Your task to perform on an android device: open a new tab in the chrome app Image 0: 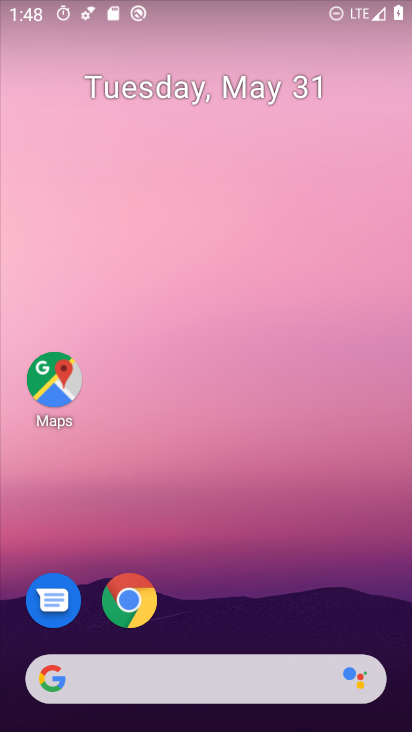
Step 0: click (125, 597)
Your task to perform on an android device: open a new tab in the chrome app Image 1: 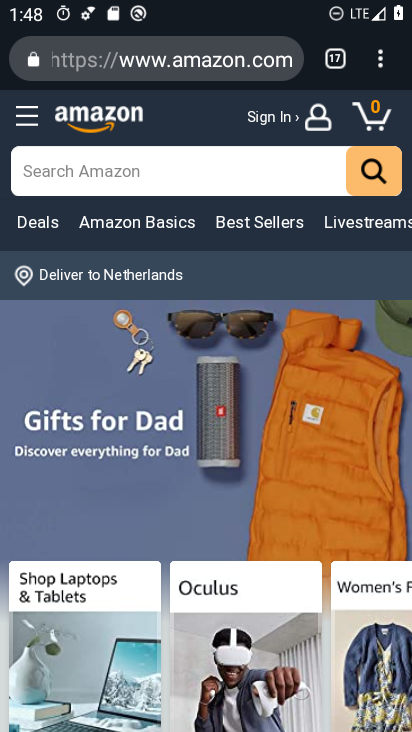
Step 1: click (381, 69)
Your task to perform on an android device: open a new tab in the chrome app Image 2: 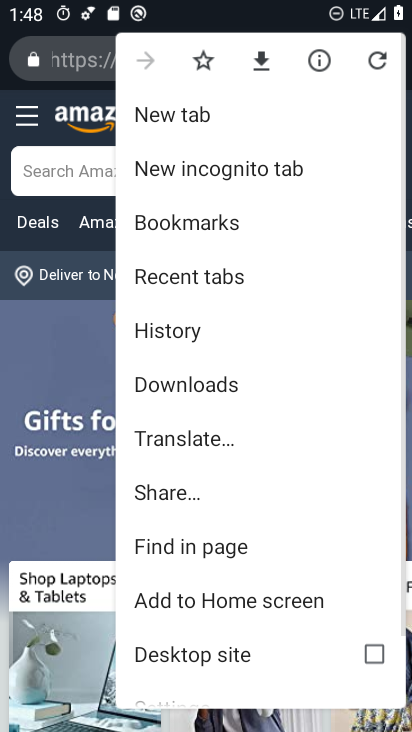
Step 2: click (198, 107)
Your task to perform on an android device: open a new tab in the chrome app Image 3: 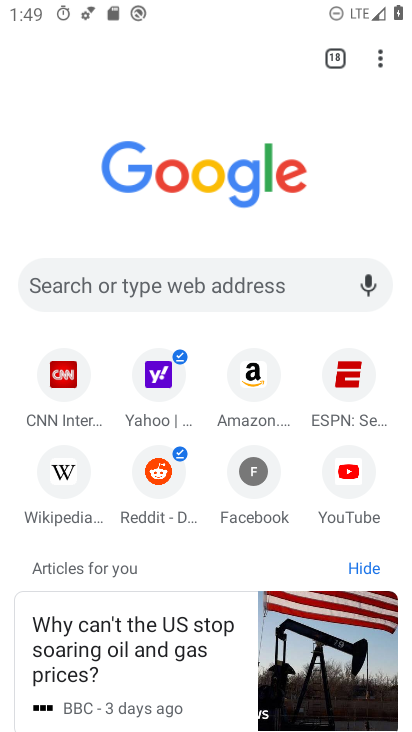
Step 3: click (383, 67)
Your task to perform on an android device: open a new tab in the chrome app Image 4: 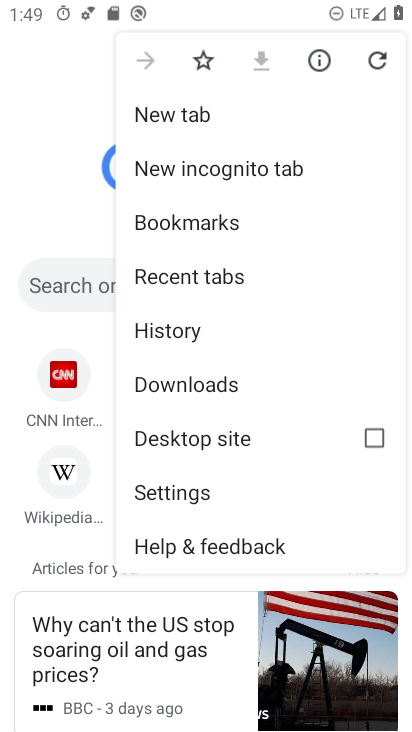
Step 4: click (193, 106)
Your task to perform on an android device: open a new tab in the chrome app Image 5: 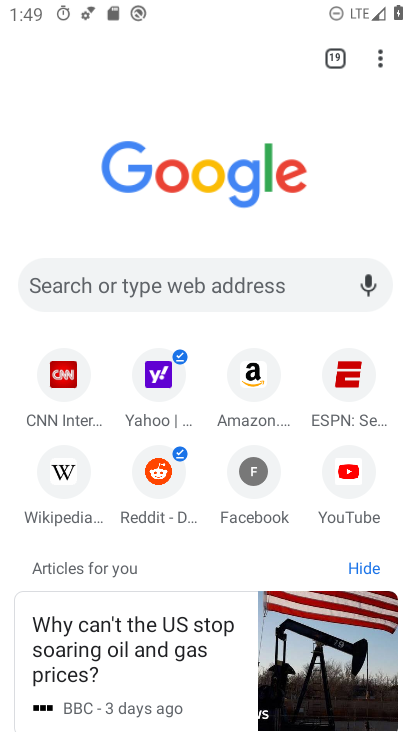
Step 5: task complete